Your task to perform on an android device: move an email to a new category in the gmail app Image 0: 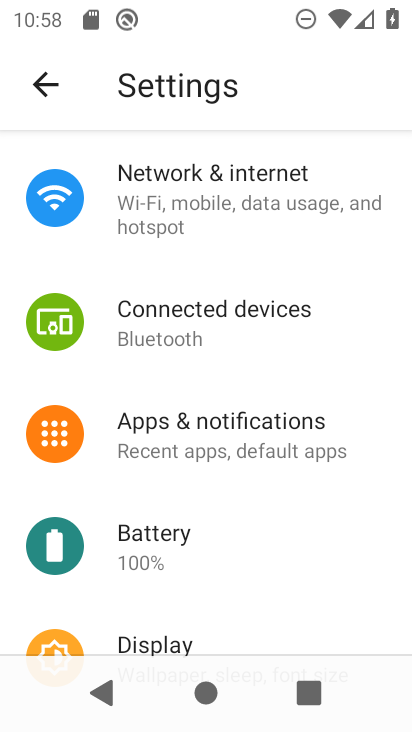
Step 0: press home button
Your task to perform on an android device: move an email to a new category in the gmail app Image 1: 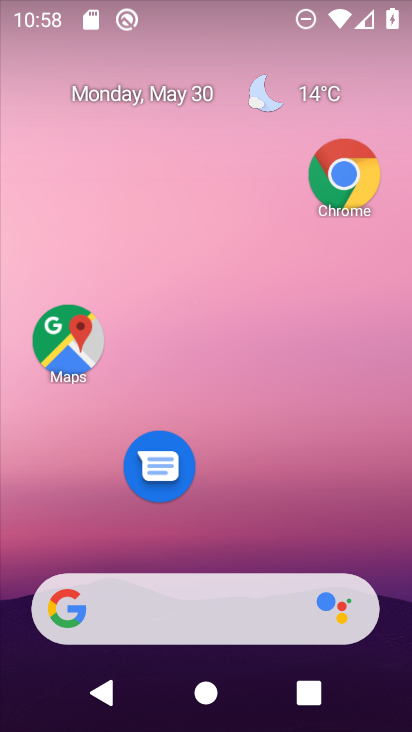
Step 1: drag from (225, 539) to (147, 15)
Your task to perform on an android device: move an email to a new category in the gmail app Image 2: 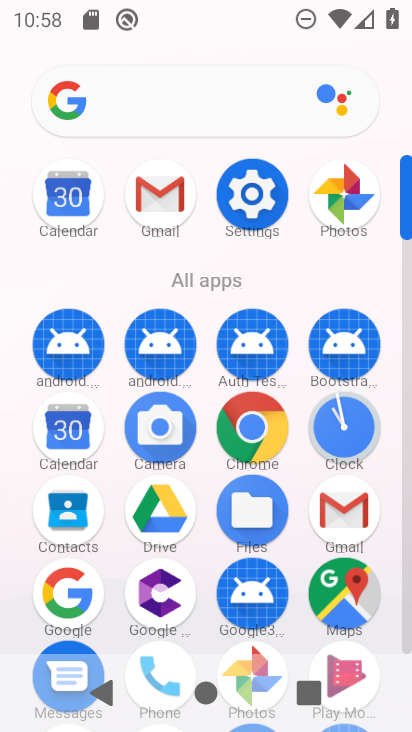
Step 2: click (354, 498)
Your task to perform on an android device: move an email to a new category in the gmail app Image 3: 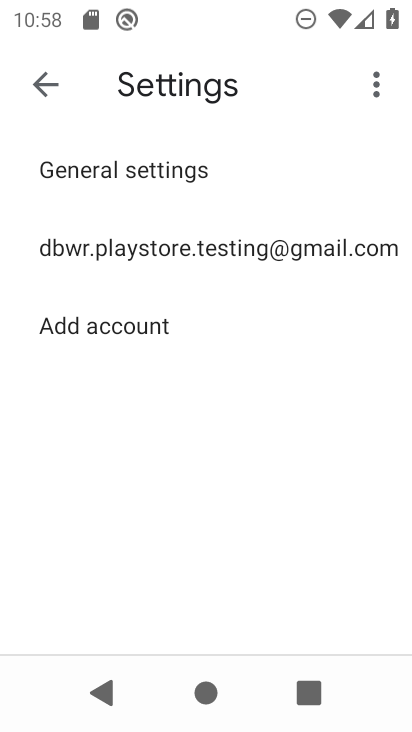
Step 3: click (83, 242)
Your task to perform on an android device: move an email to a new category in the gmail app Image 4: 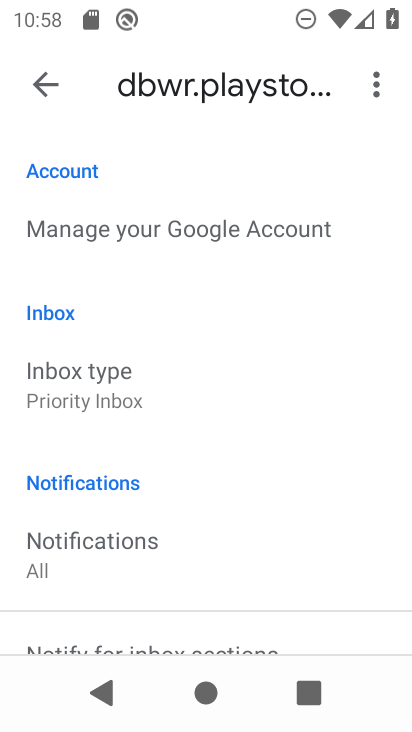
Step 4: click (49, 76)
Your task to perform on an android device: move an email to a new category in the gmail app Image 5: 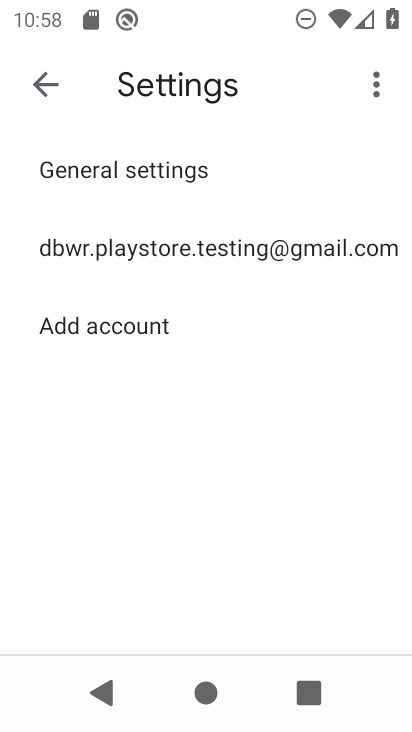
Step 5: click (49, 76)
Your task to perform on an android device: move an email to a new category in the gmail app Image 6: 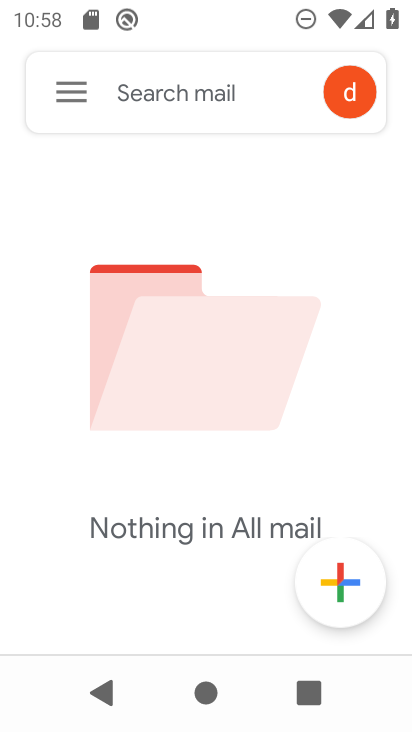
Step 6: task complete